Your task to perform on an android device: What is the news today? Image 0: 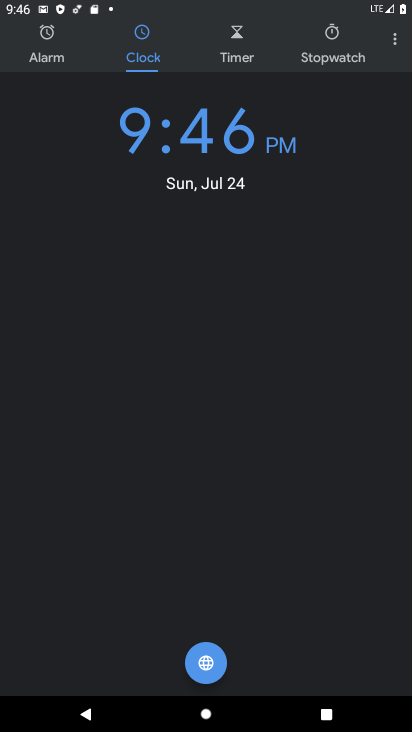
Step 0: press home button
Your task to perform on an android device: What is the news today? Image 1: 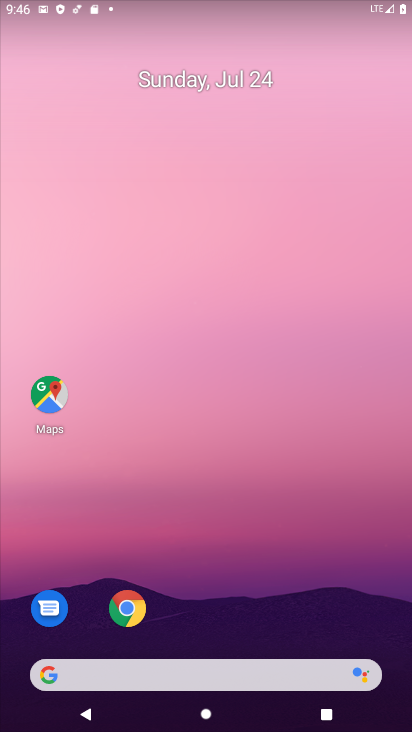
Step 1: task complete